Your task to perform on an android device: Find coffee shops on Maps Image 0: 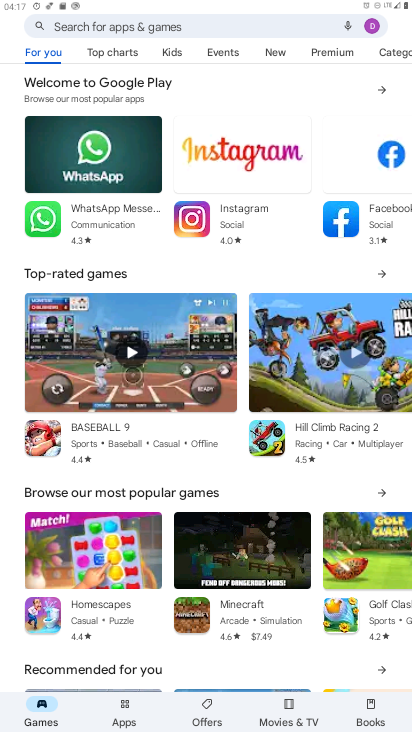
Step 0: press home button
Your task to perform on an android device: Find coffee shops on Maps Image 1: 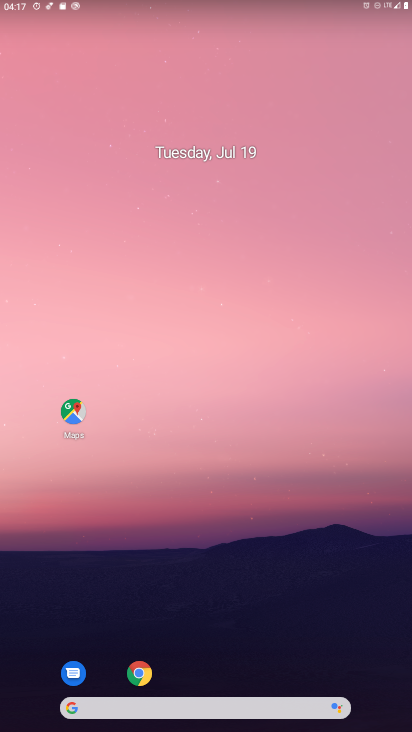
Step 1: drag from (254, 636) to (261, 24)
Your task to perform on an android device: Find coffee shops on Maps Image 2: 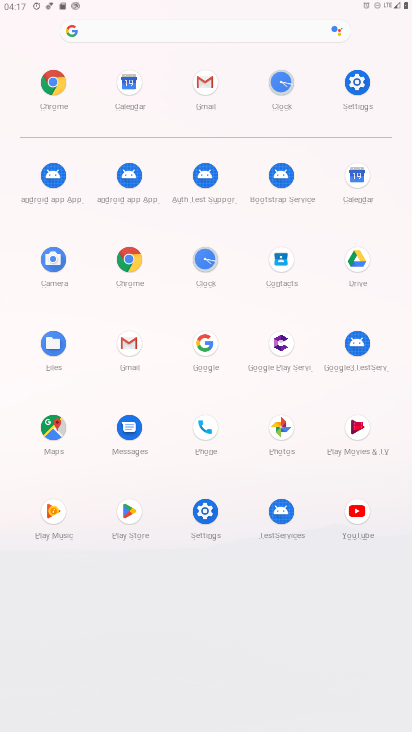
Step 2: click (57, 429)
Your task to perform on an android device: Find coffee shops on Maps Image 3: 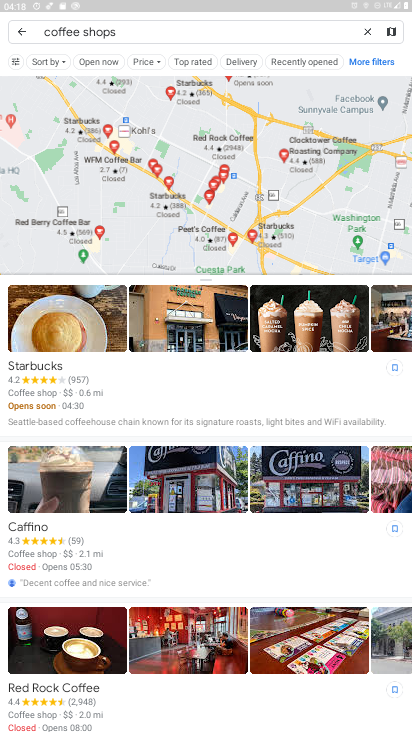
Step 3: task complete